Your task to perform on an android device: remove spam from my inbox in the gmail app Image 0: 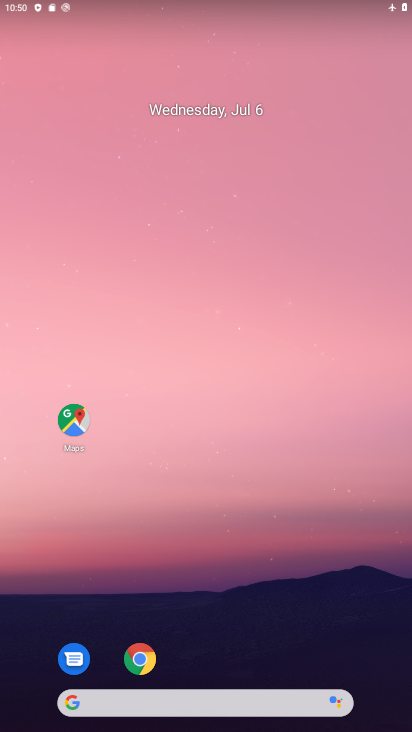
Step 0: drag from (213, 651) to (249, 180)
Your task to perform on an android device: remove spam from my inbox in the gmail app Image 1: 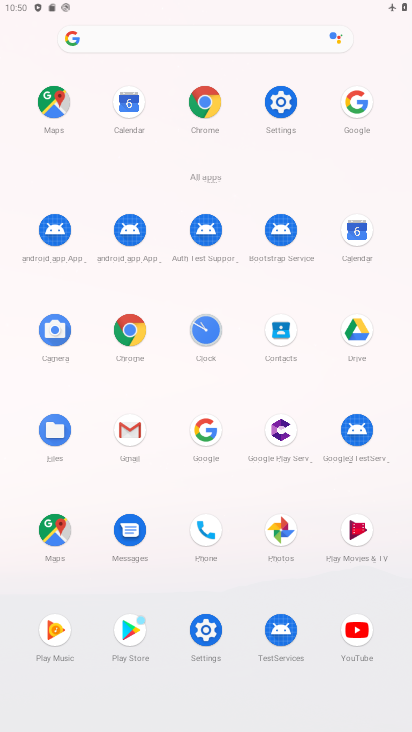
Step 1: click (144, 434)
Your task to perform on an android device: remove spam from my inbox in the gmail app Image 2: 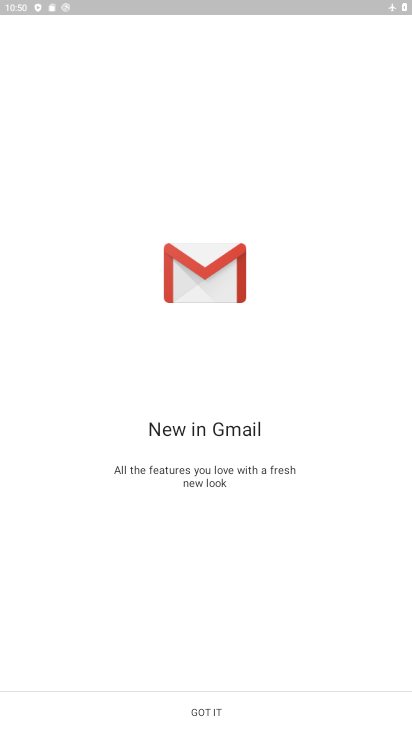
Step 2: click (242, 715)
Your task to perform on an android device: remove spam from my inbox in the gmail app Image 3: 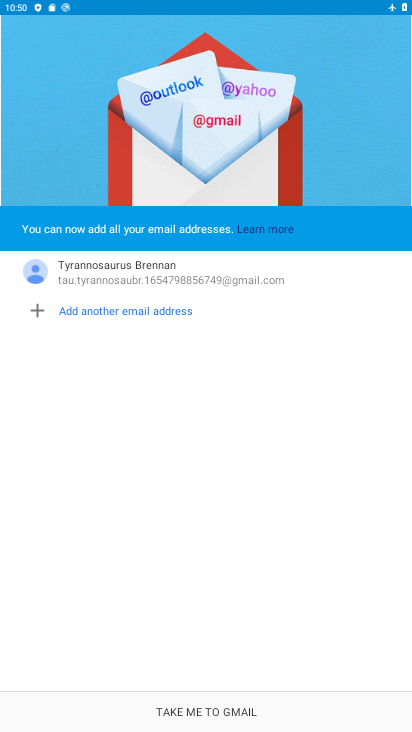
Step 3: click (196, 694)
Your task to perform on an android device: remove spam from my inbox in the gmail app Image 4: 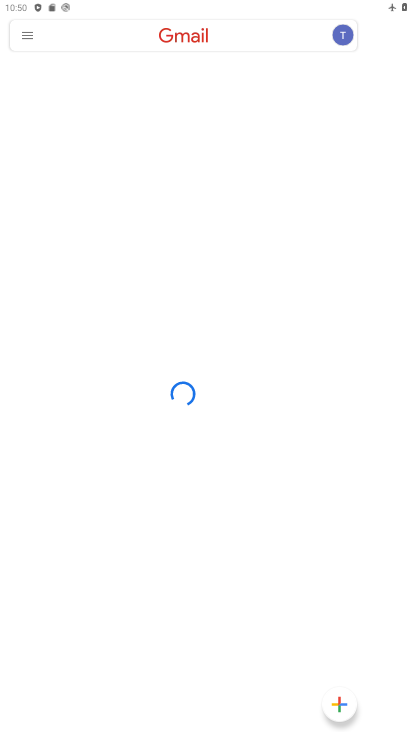
Step 4: click (24, 40)
Your task to perform on an android device: remove spam from my inbox in the gmail app Image 5: 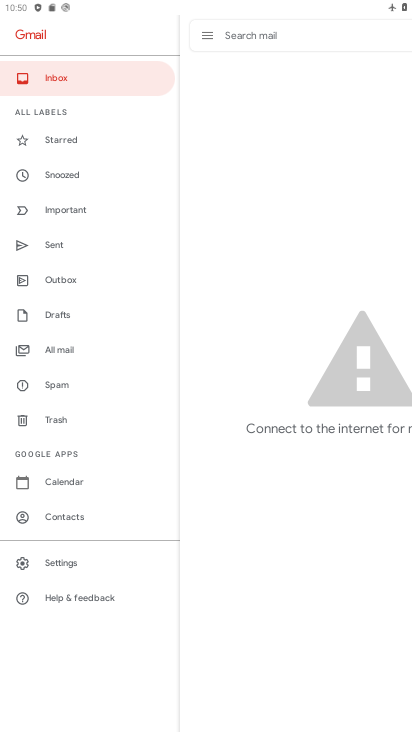
Step 5: click (81, 383)
Your task to perform on an android device: remove spam from my inbox in the gmail app Image 6: 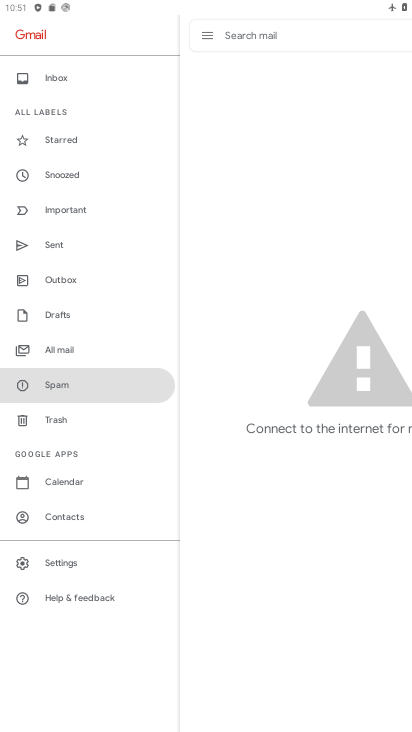
Step 6: click (99, 394)
Your task to perform on an android device: remove spam from my inbox in the gmail app Image 7: 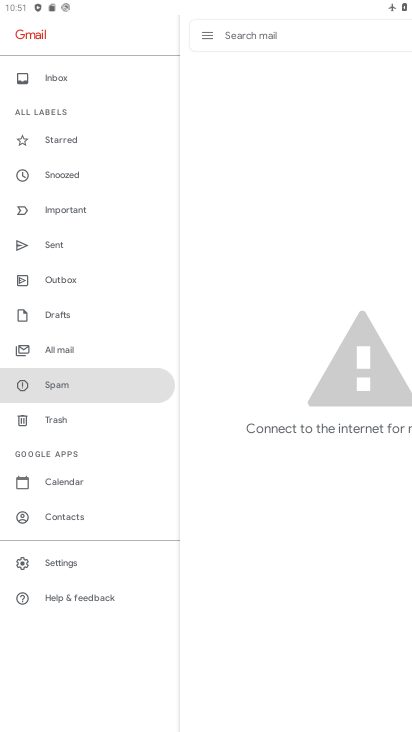
Step 7: task complete